Your task to perform on an android device: Clear the cart on ebay. Image 0: 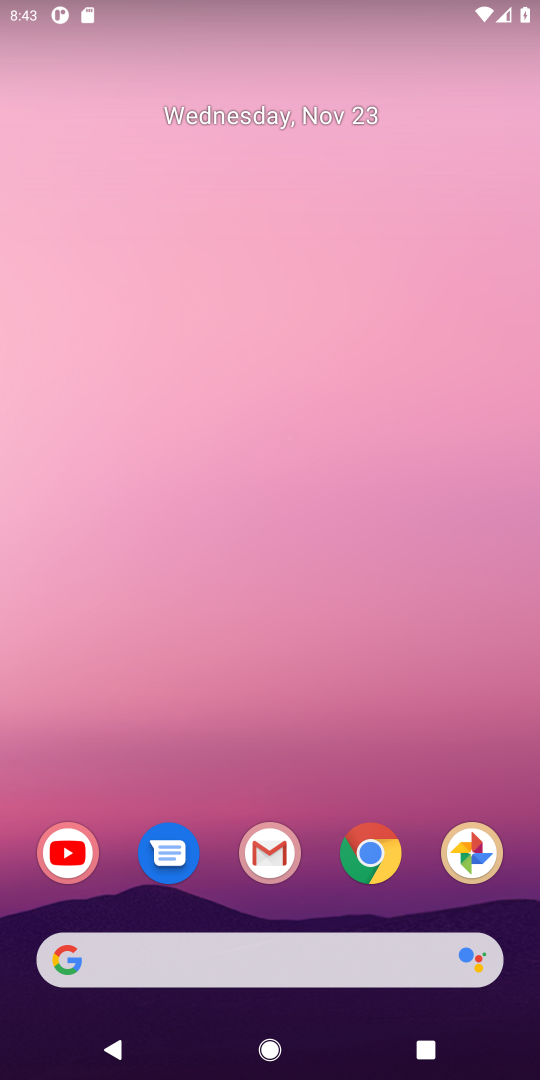
Step 0: click (379, 863)
Your task to perform on an android device: Clear the cart on ebay. Image 1: 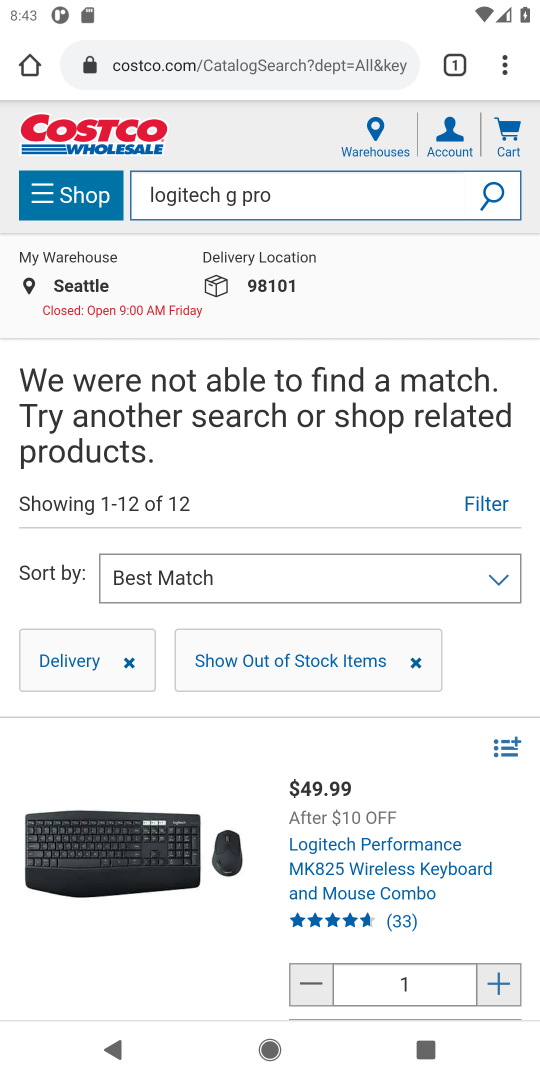
Step 1: click (186, 74)
Your task to perform on an android device: Clear the cart on ebay. Image 2: 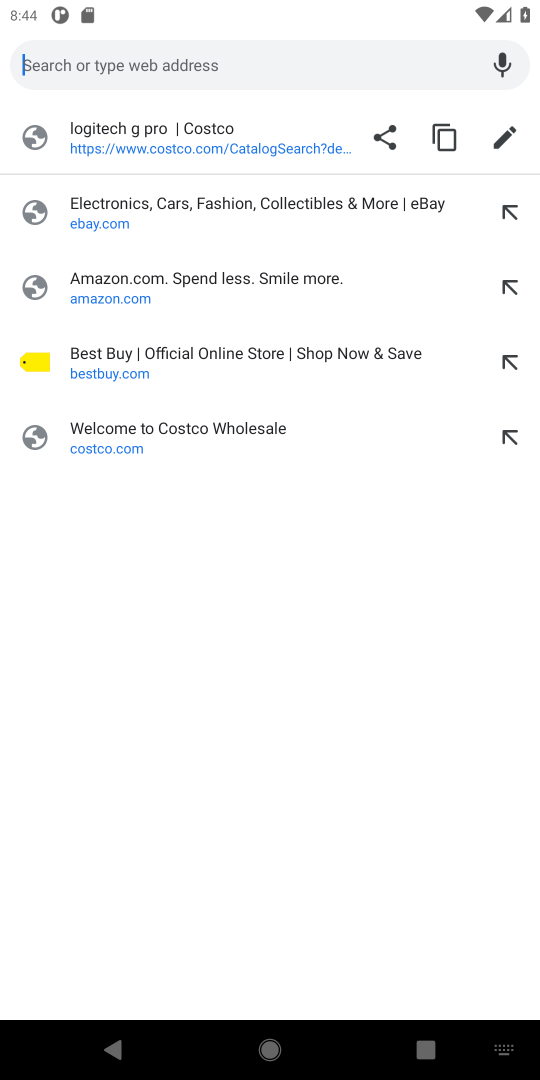
Step 2: click (95, 232)
Your task to perform on an android device: Clear the cart on ebay. Image 3: 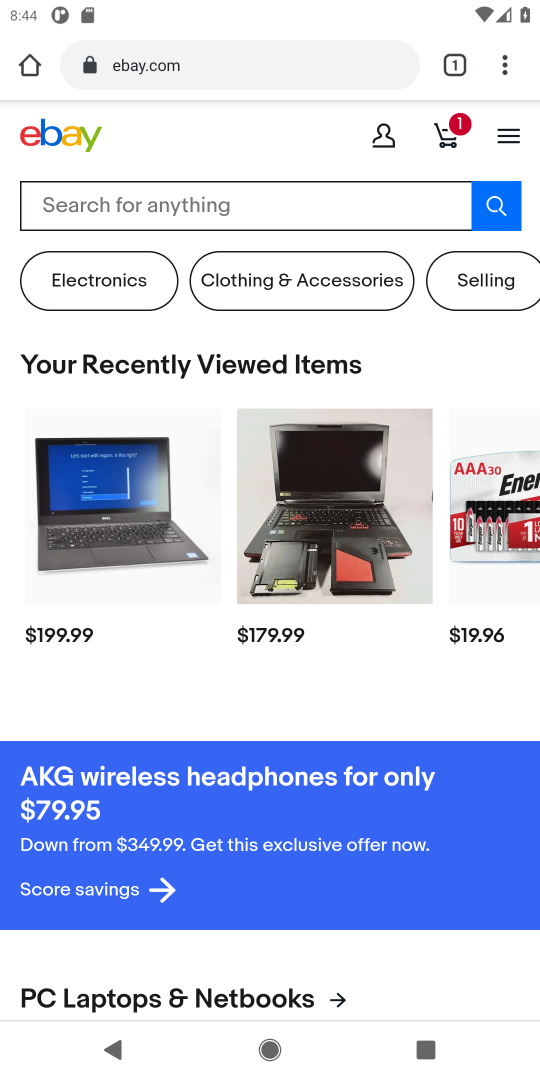
Step 3: click (443, 132)
Your task to perform on an android device: Clear the cart on ebay. Image 4: 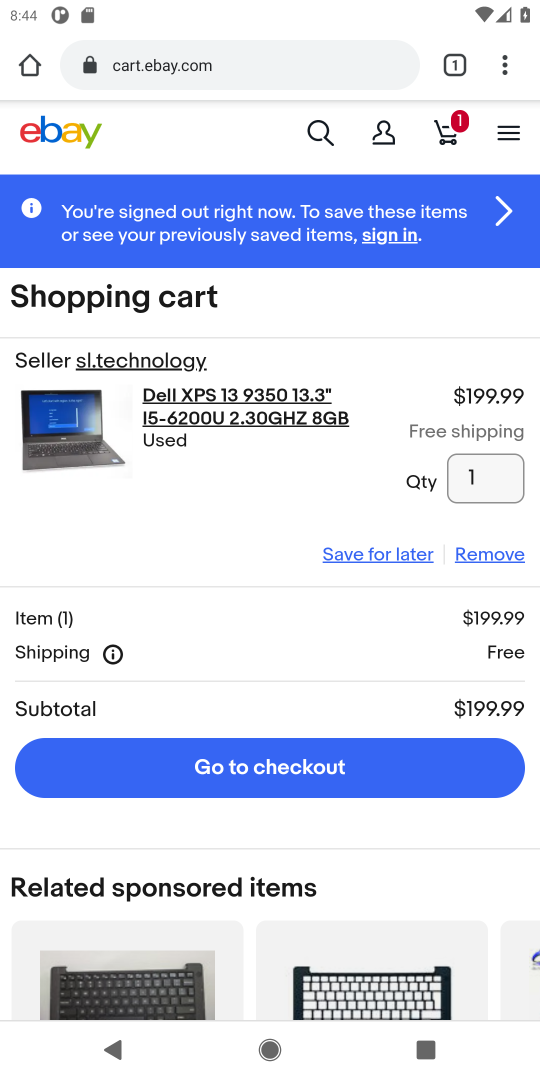
Step 4: click (492, 560)
Your task to perform on an android device: Clear the cart on ebay. Image 5: 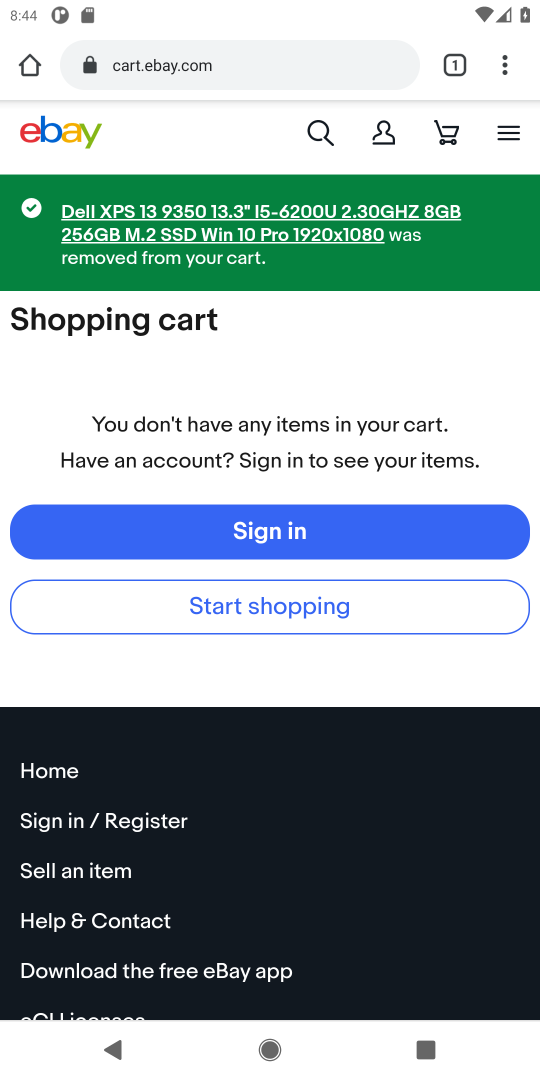
Step 5: task complete